Your task to perform on an android device: toggle sleep mode Image 0: 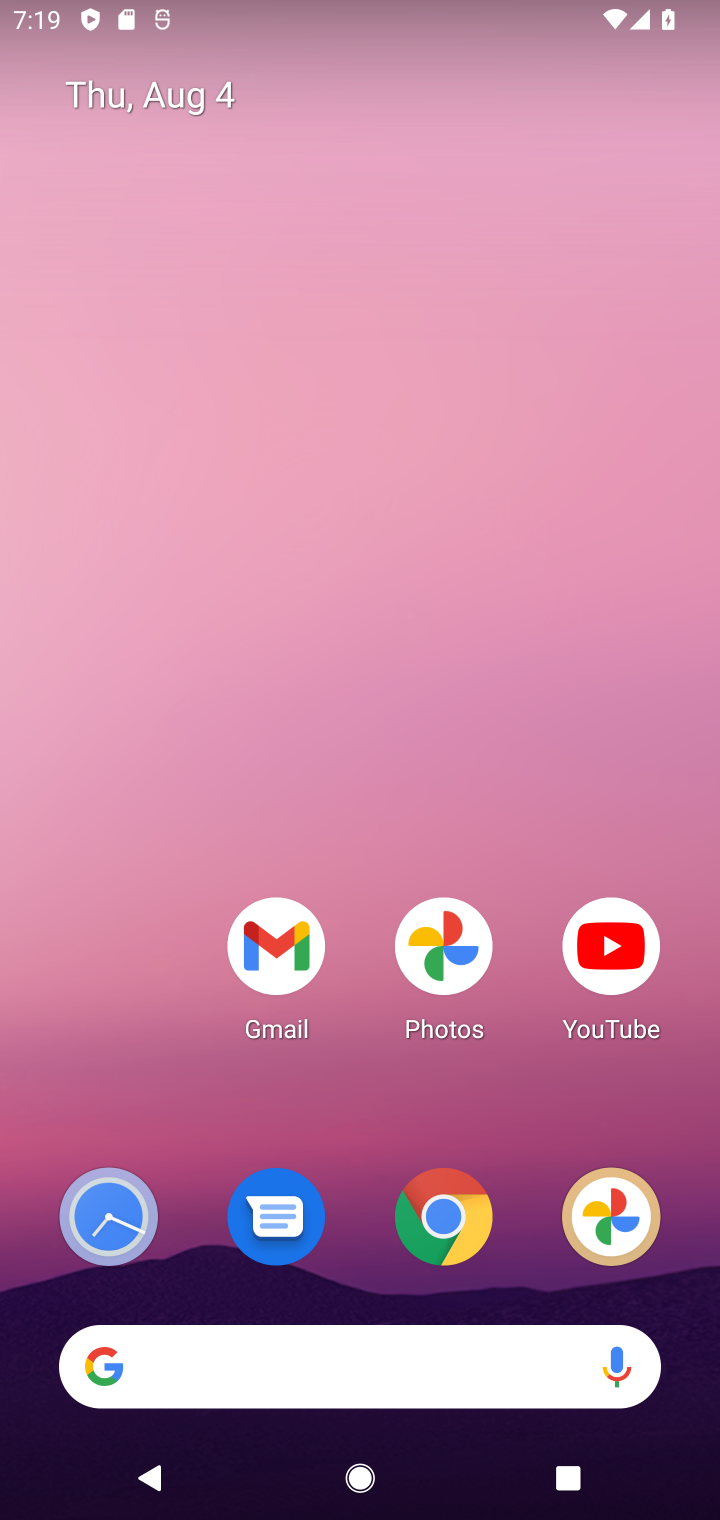
Step 0: drag from (380, 1099) to (394, 181)
Your task to perform on an android device: toggle sleep mode Image 1: 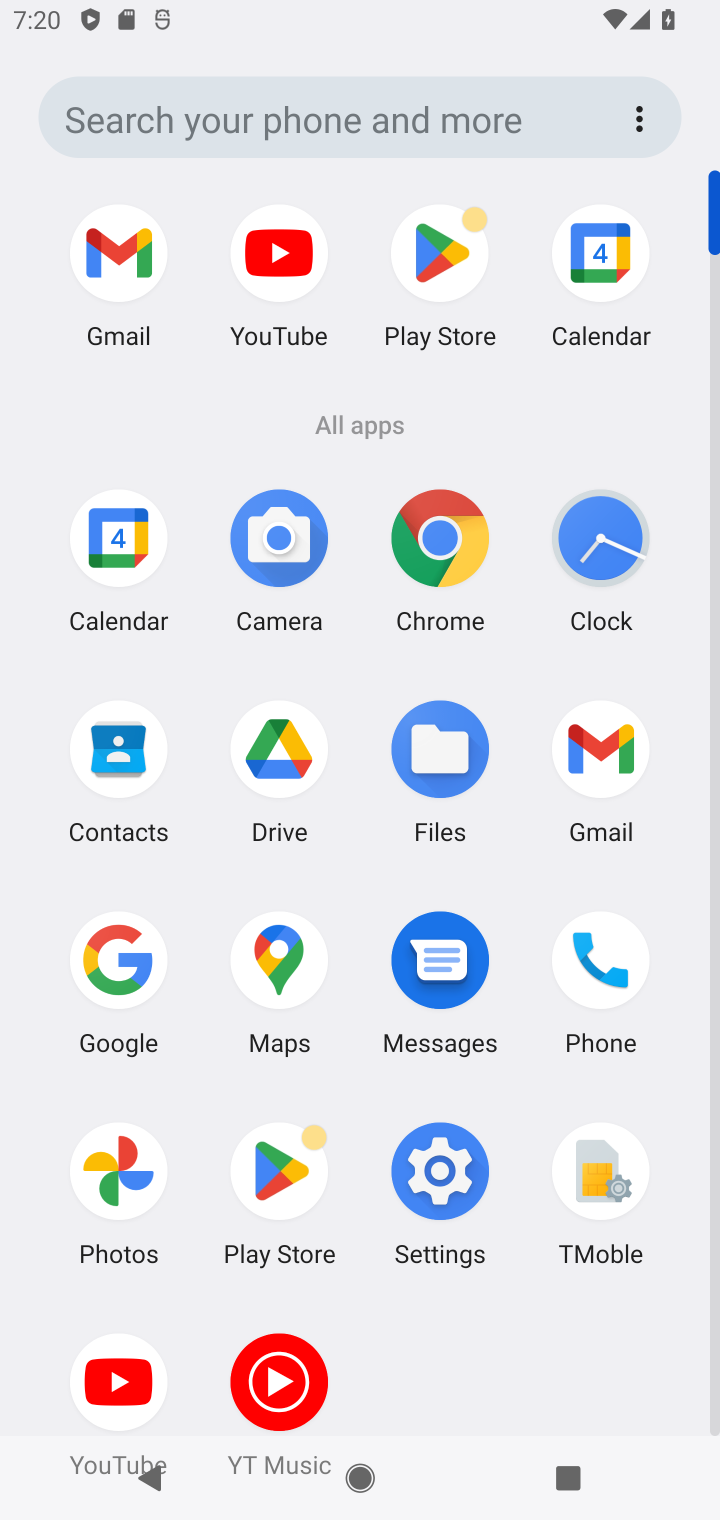
Step 1: click (459, 1193)
Your task to perform on an android device: toggle sleep mode Image 2: 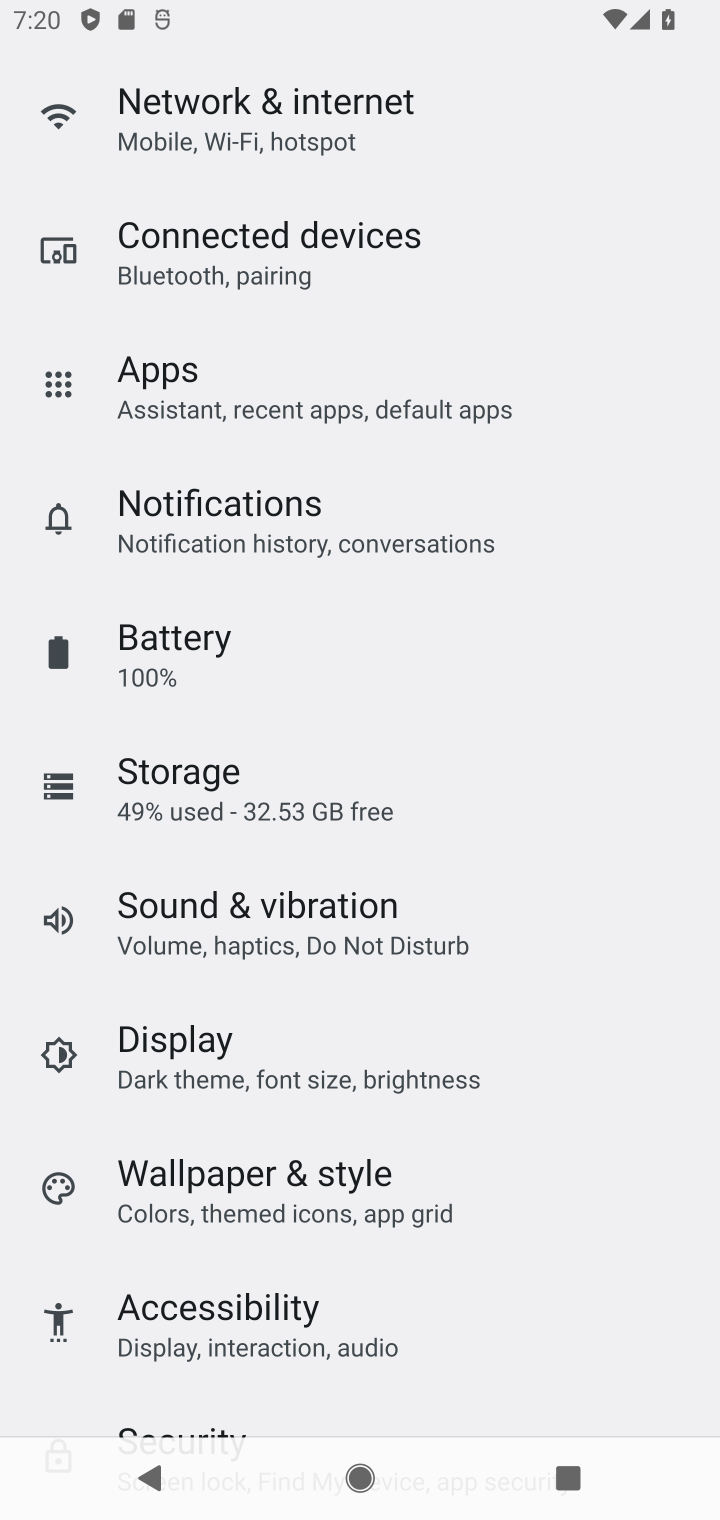
Step 2: click (262, 1069)
Your task to perform on an android device: toggle sleep mode Image 3: 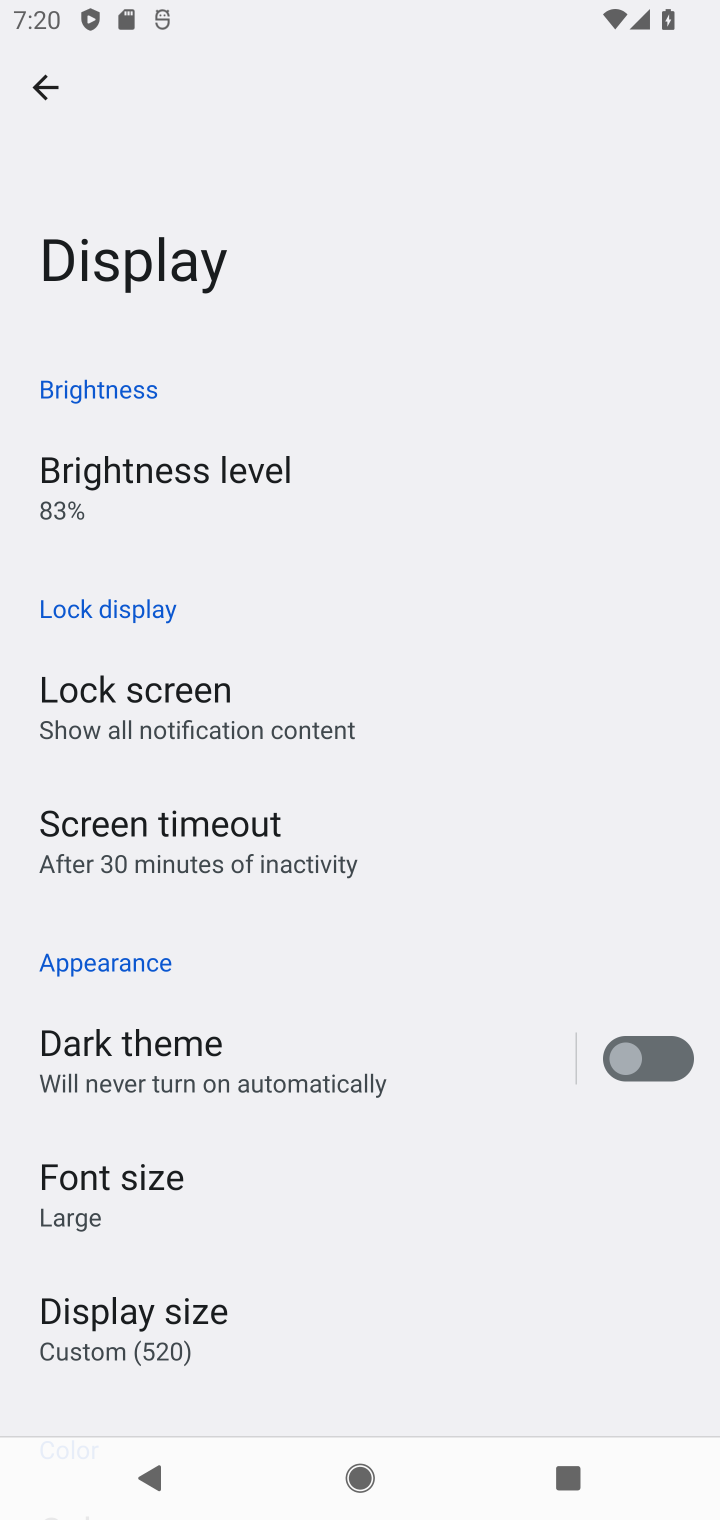
Step 3: task complete